Your task to perform on an android device: toggle notifications settings in the gmail app Image 0: 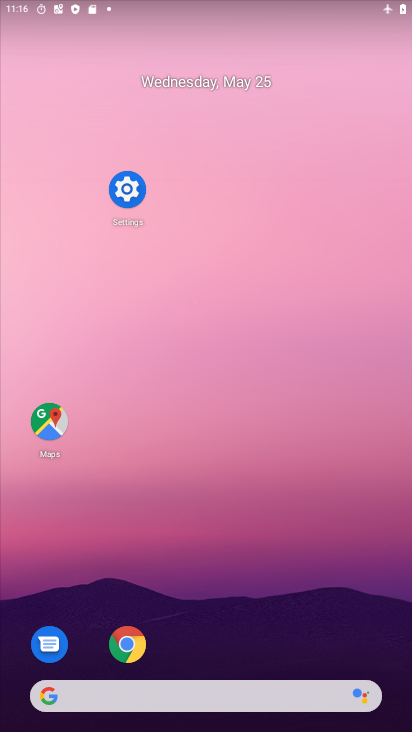
Step 0: drag from (260, 617) to (294, 95)
Your task to perform on an android device: toggle notifications settings in the gmail app Image 1: 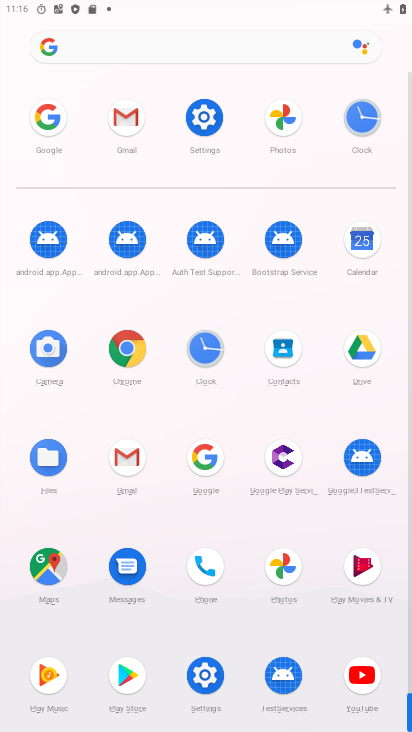
Step 1: click (132, 111)
Your task to perform on an android device: toggle notifications settings in the gmail app Image 2: 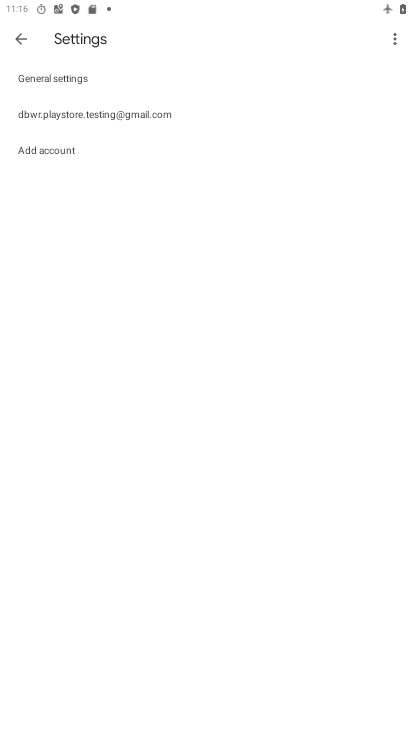
Step 2: click (91, 116)
Your task to perform on an android device: toggle notifications settings in the gmail app Image 3: 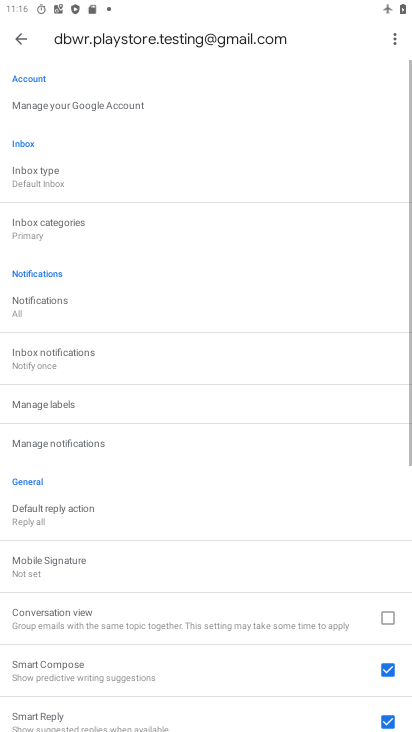
Step 3: click (66, 300)
Your task to perform on an android device: toggle notifications settings in the gmail app Image 4: 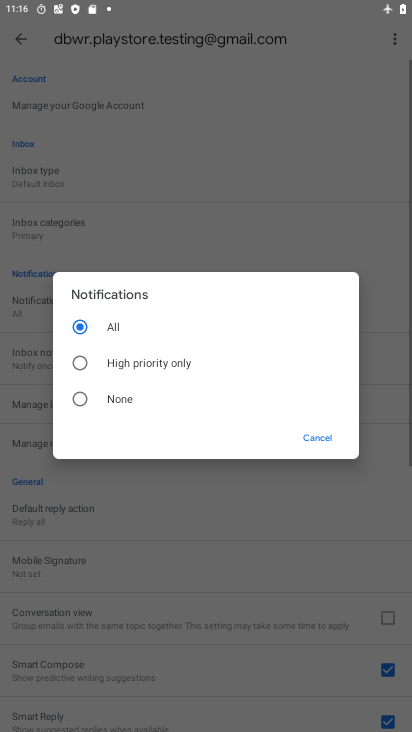
Step 4: click (85, 396)
Your task to perform on an android device: toggle notifications settings in the gmail app Image 5: 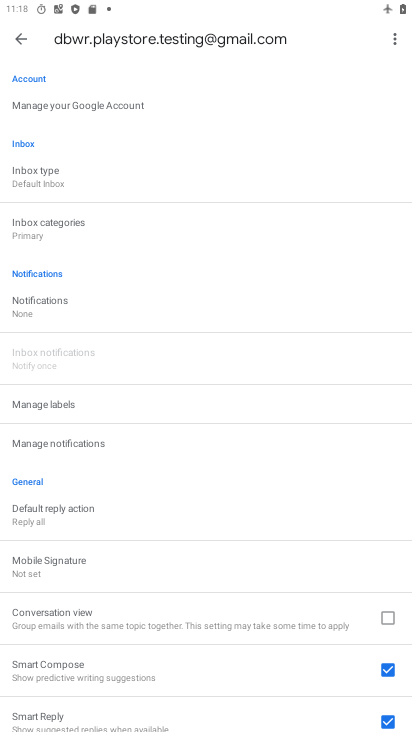
Step 5: task complete